Your task to perform on an android device: Go to ESPN.com Image 0: 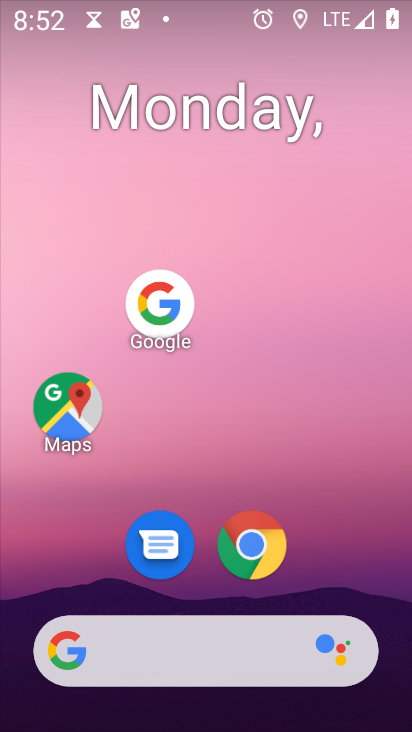
Step 0: press home button
Your task to perform on an android device: Go to ESPN.com Image 1: 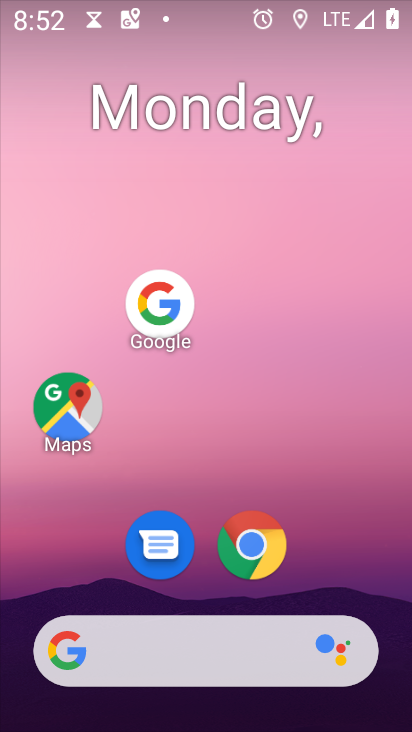
Step 1: click (261, 554)
Your task to perform on an android device: Go to ESPN.com Image 2: 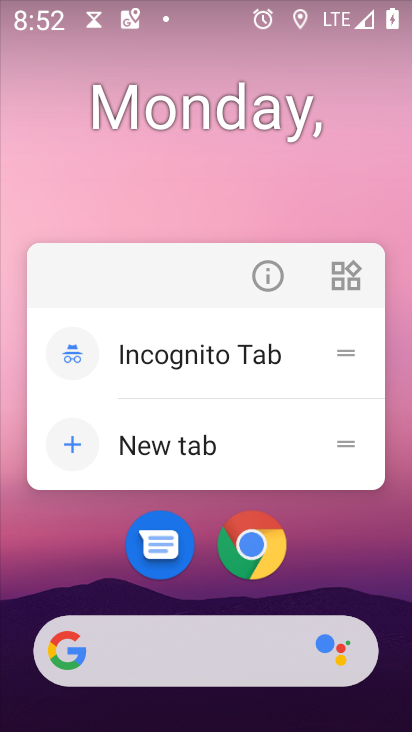
Step 2: click (252, 554)
Your task to perform on an android device: Go to ESPN.com Image 3: 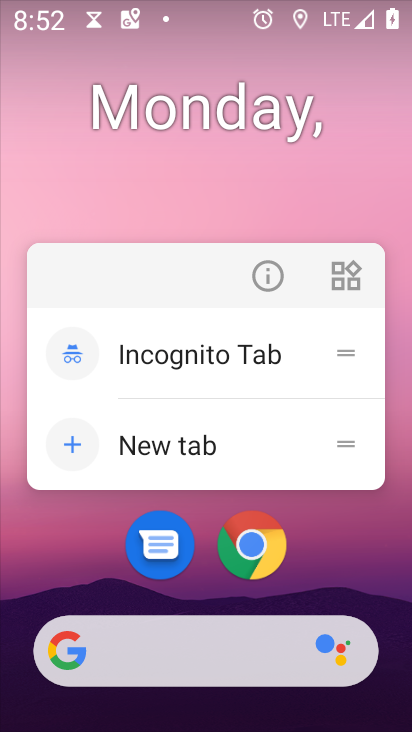
Step 3: click (257, 553)
Your task to perform on an android device: Go to ESPN.com Image 4: 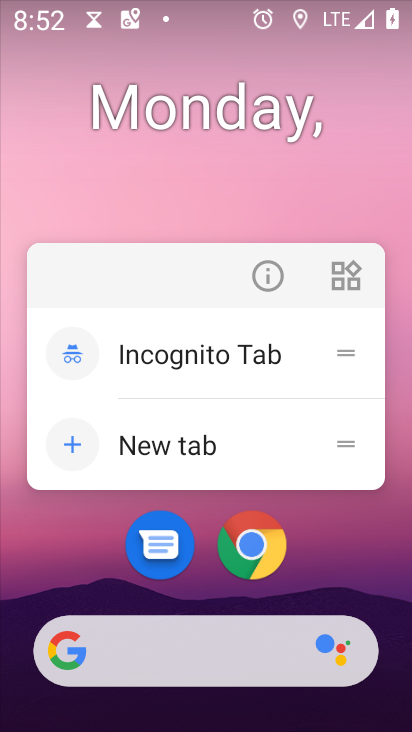
Step 4: click (254, 568)
Your task to perform on an android device: Go to ESPN.com Image 5: 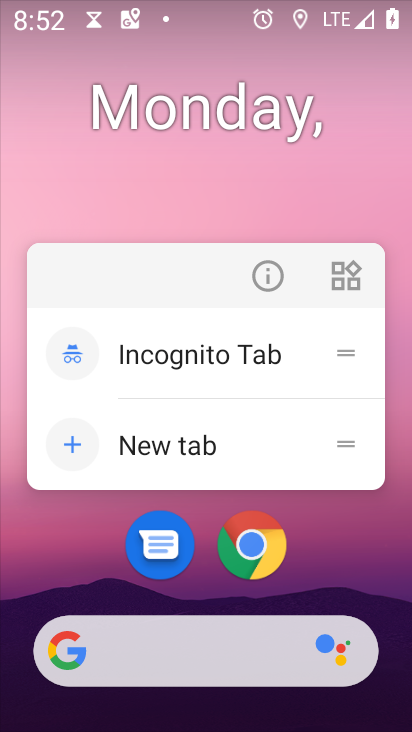
Step 5: click (259, 556)
Your task to perform on an android device: Go to ESPN.com Image 6: 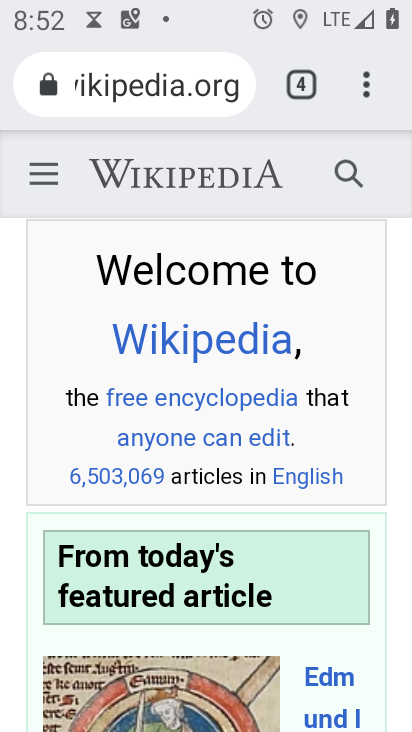
Step 6: drag from (368, 77) to (208, 177)
Your task to perform on an android device: Go to ESPN.com Image 7: 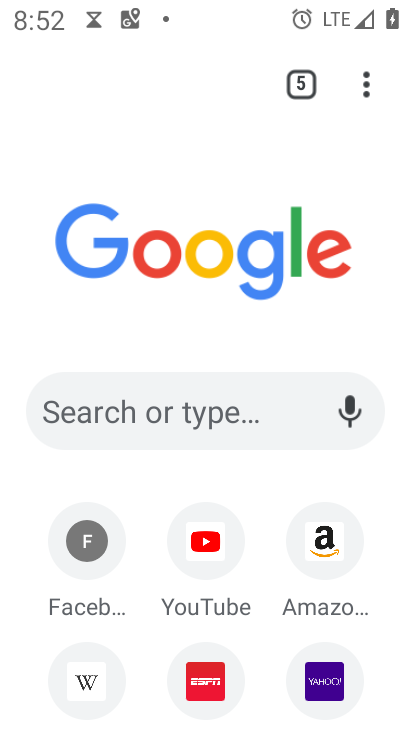
Step 7: drag from (173, 518) to (278, 311)
Your task to perform on an android device: Go to ESPN.com Image 8: 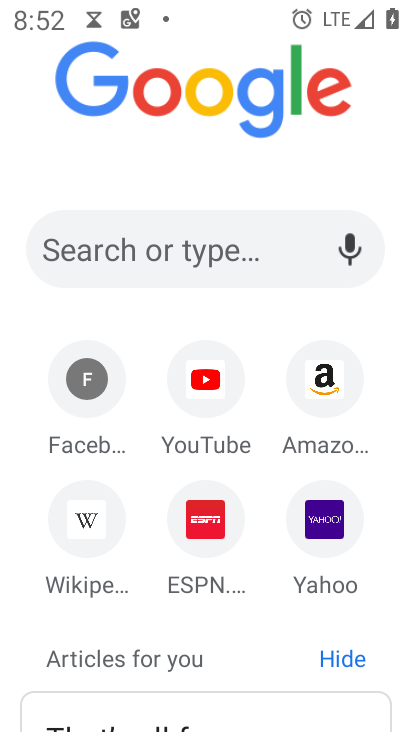
Step 8: click (201, 516)
Your task to perform on an android device: Go to ESPN.com Image 9: 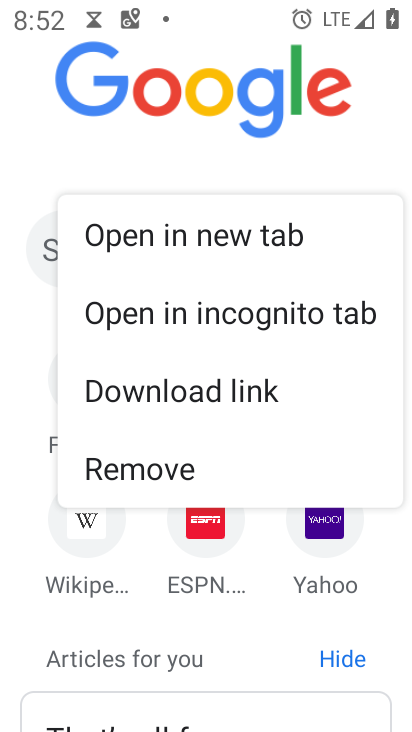
Step 9: click (201, 530)
Your task to perform on an android device: Go to ESPN.com Image 10: 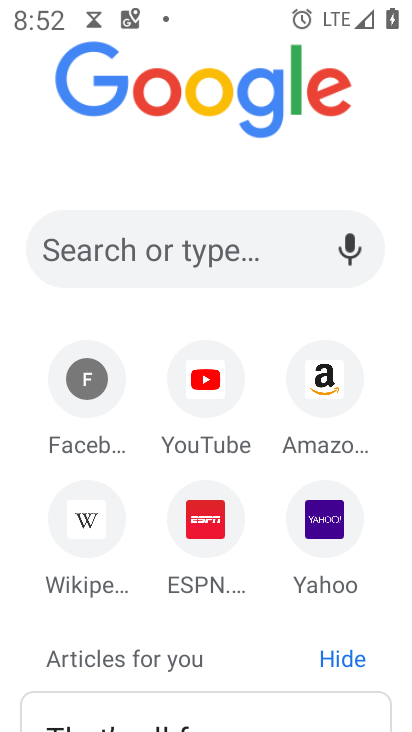
Step 10: click (215, 527)
Your task to perform on an android device: Go to ESPN.com Image 11: 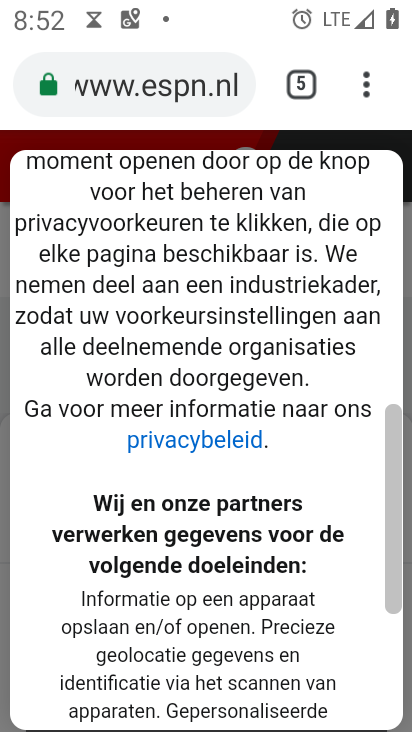
Step 11: drag from (215, 650) to (280, 262)
Your task to perform on an android device: Go to ESPN.com Image 12: 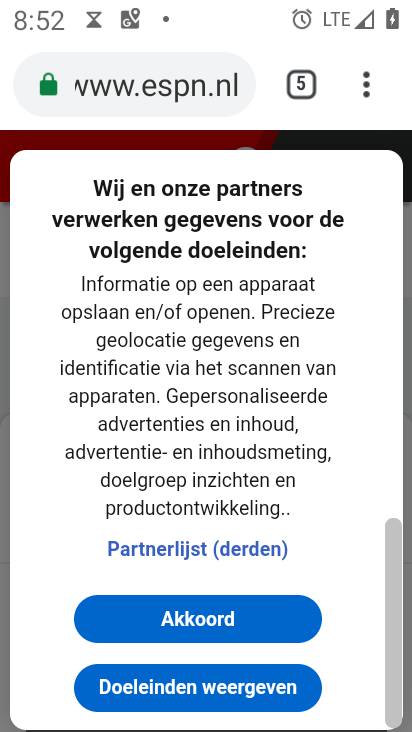
Step 12: click (203, 620)
Your task to perform on an android device: Go to ESPN.com Image 13: 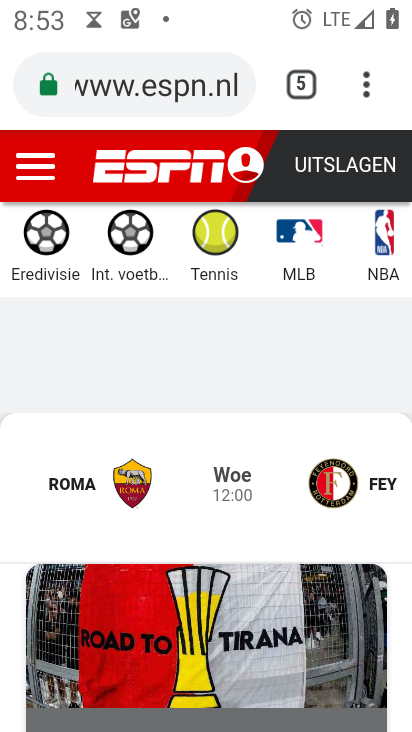
Step 13: task complete